Your task to perform on an android device: change notifications settings Image 0: 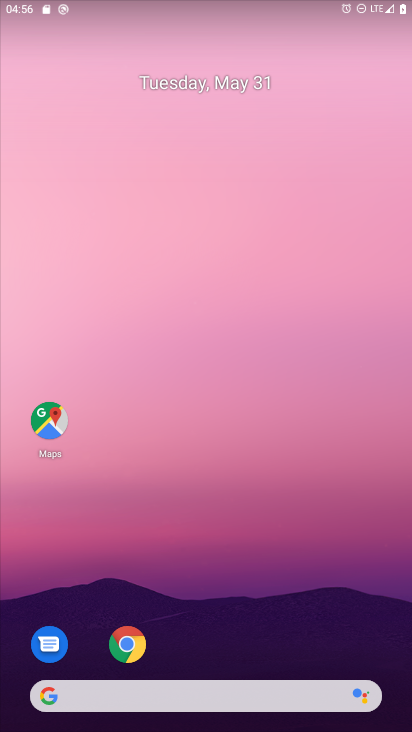
Step 0: drag from (269, 491) to (246, 177)
Your task to perform on an android device: change notifications settings Image 1: 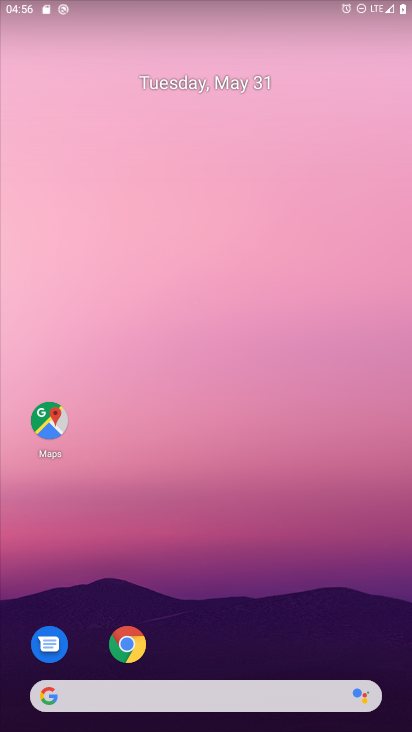
Step 1: drag from (281, 409) to (234, 65)
Your task to perform on an android device: change notifications settings Image 2: 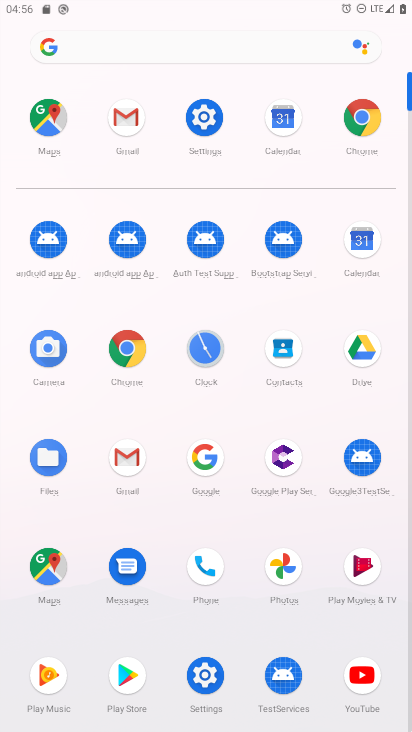
Step 2: click (197, 122)
Your task to perform on an android device: change notifications settings Image 3: 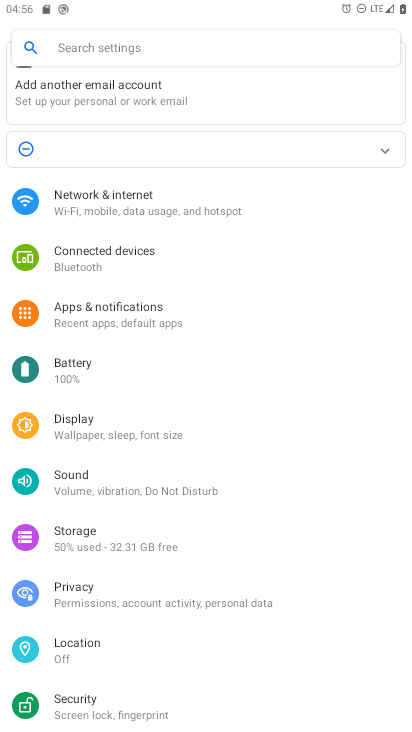
Step 3: click (139, 312)
Your task to perform on an android device: change notifications settings Image 4: 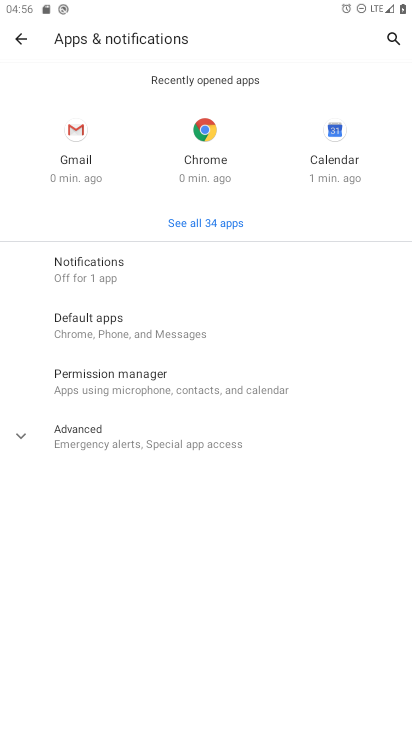
Step 4: click (119, 441)
Your task to perform on an android device: change notifications settings Image 5: 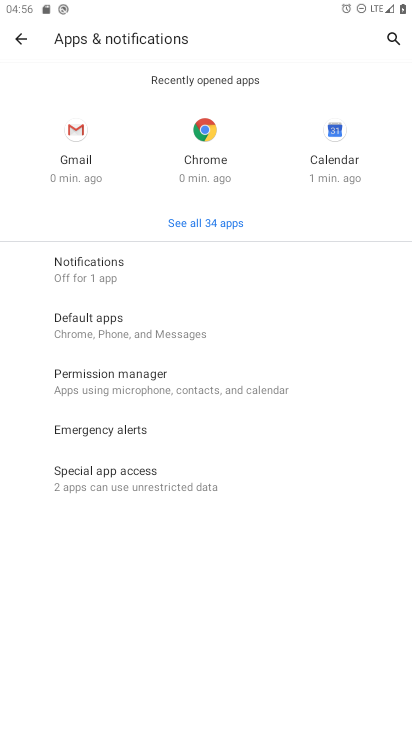
Step 5: click (127, 280)
Your task to perform on an android device: change notifications settings Image 6: 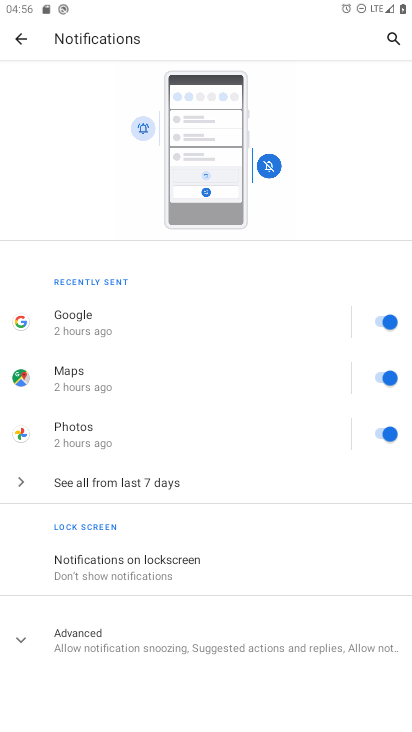
Step 6: drag from (164, 551) to (213, 169)
Your task to perform on an android device: change notifications settings Image 7: 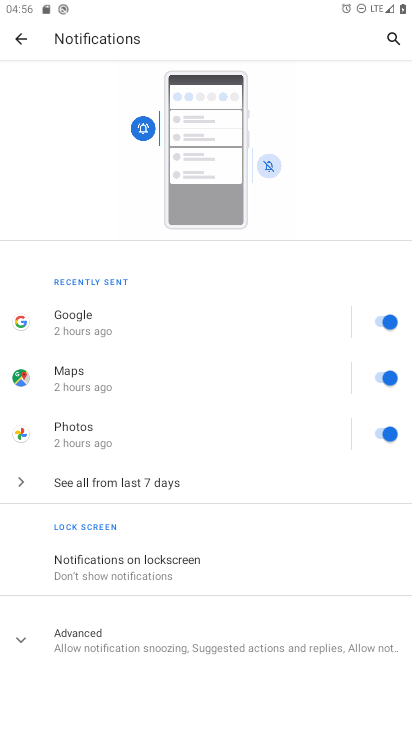
Step 7: click (175, 632)
Your task to perform on an android device: change notifications settings Image 8: 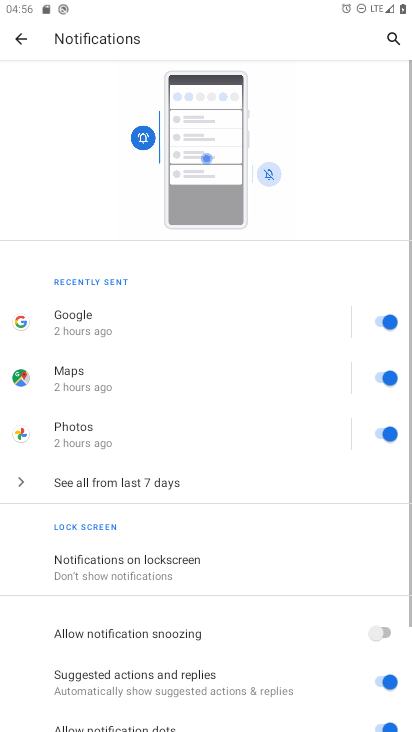
Step 8: click (368, 626)
Your task to perform on an android device: change notifications settings Image 9: 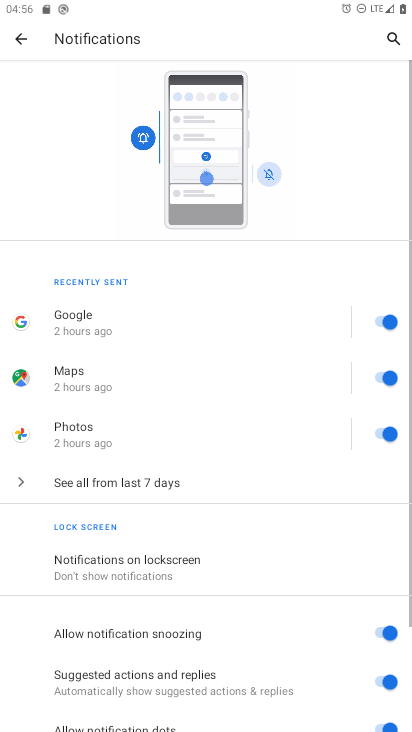
Step 9: task complete